Your task to perform on an android device: Go to Google Image 0: 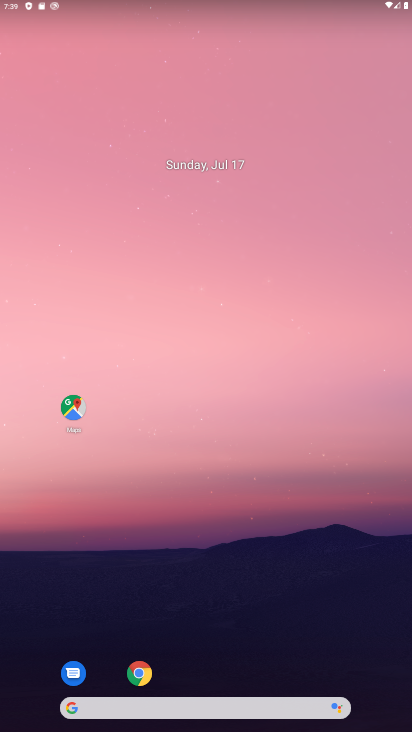
Step 0: click (102, 700)
Your task to perform on an android device: Go to Google Image 1: 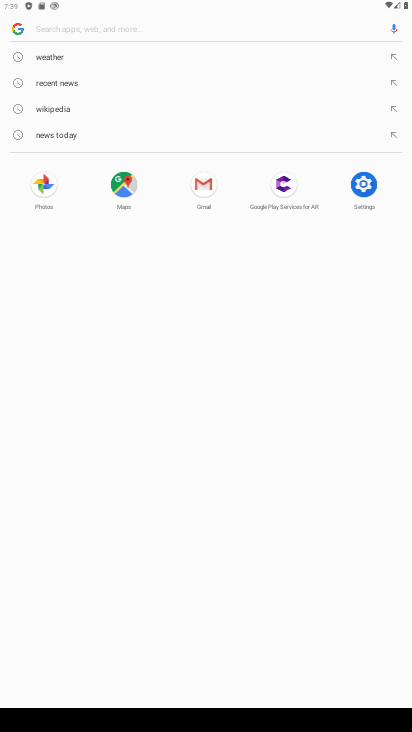
Step 1: task complete